Your task to perform on an android device: Go to Yahoo.com Image 0: 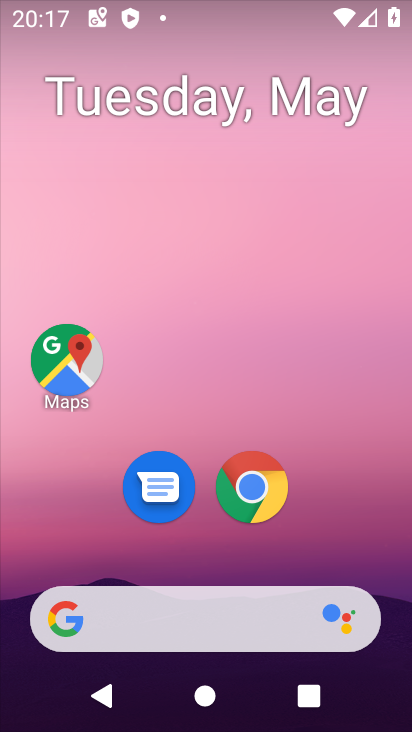
Step 0: click (233, 494)
Your task to perform on an android device: Go to Yahoo.com Image 1: 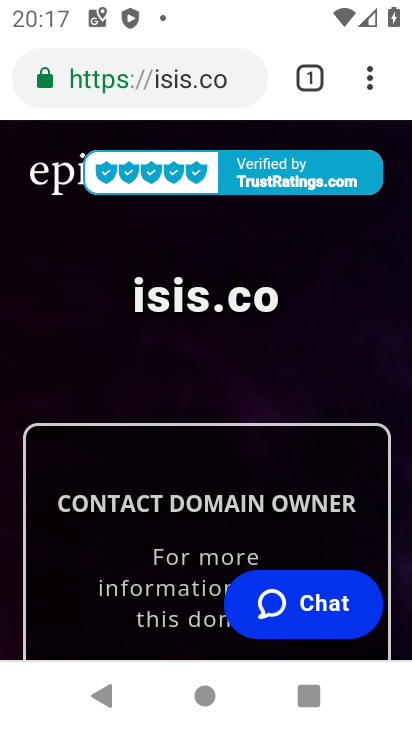
Step 1: click (213, 89)
Your task to perform on an android device: Go to Yahoo.com Image 2: 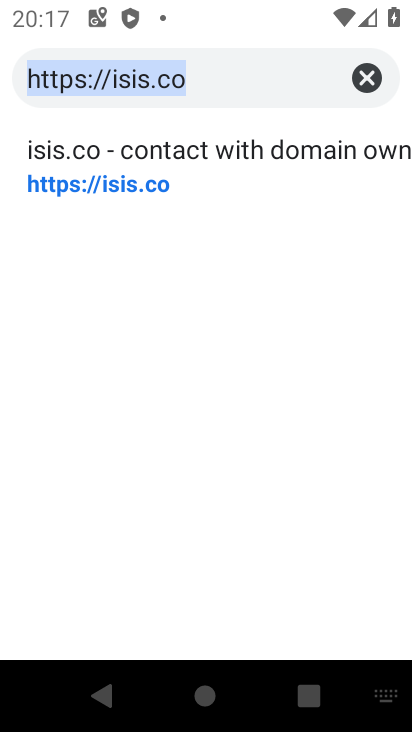
Step 2: type "yahoo.com"
Your task to perform on an android device: Go to Yahoo.com Image 3: 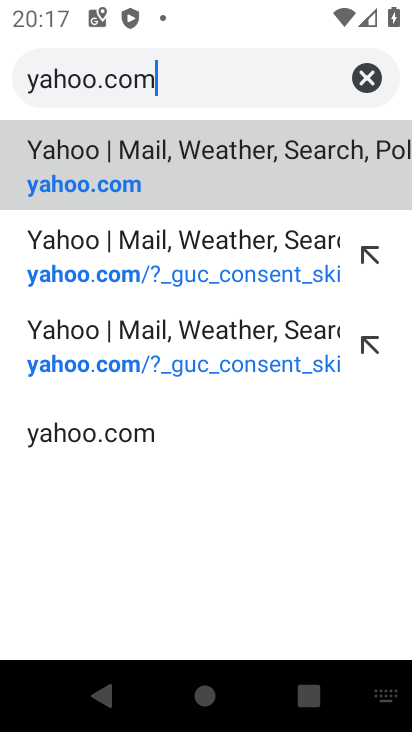
Step 3: click (202, 167)
Your task to perform on an android device: Go to Yahoo.com Image 4: 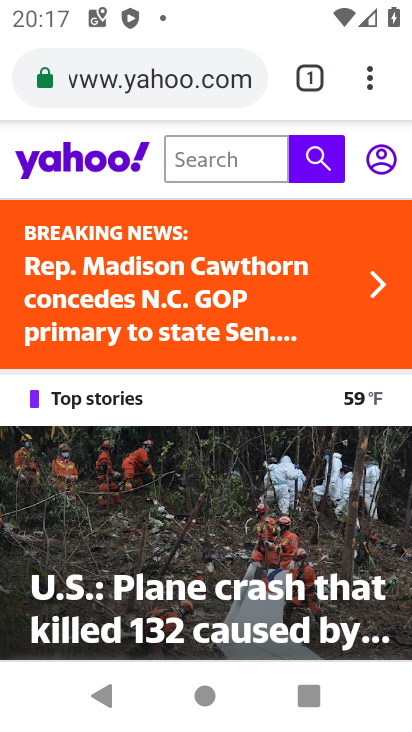
Step 4: task complete